Your task to perform on an android device: Toggle the flashlight Image 0: 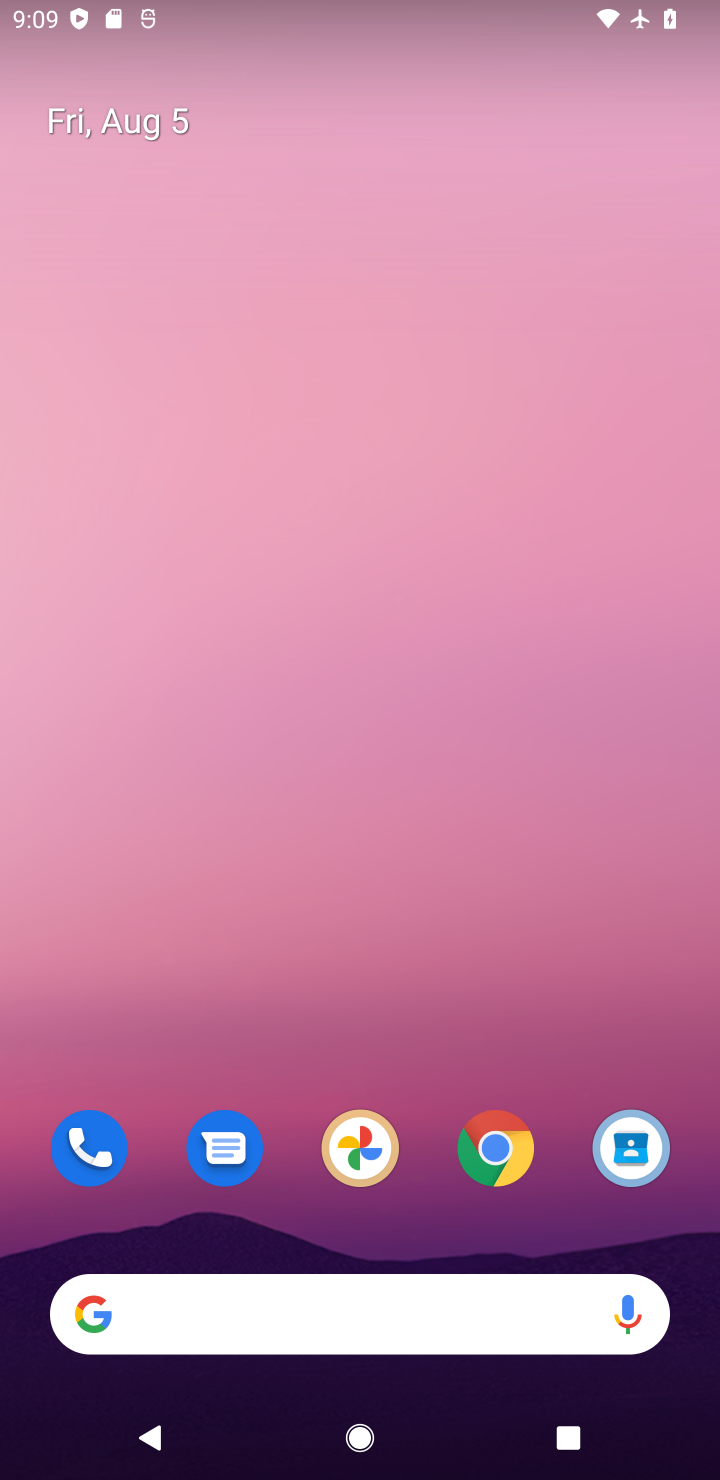
Step 0: drag from (391, 1269) to (360, 423)
Your task to perform on an android device: Toggle the flashlight Image 1: 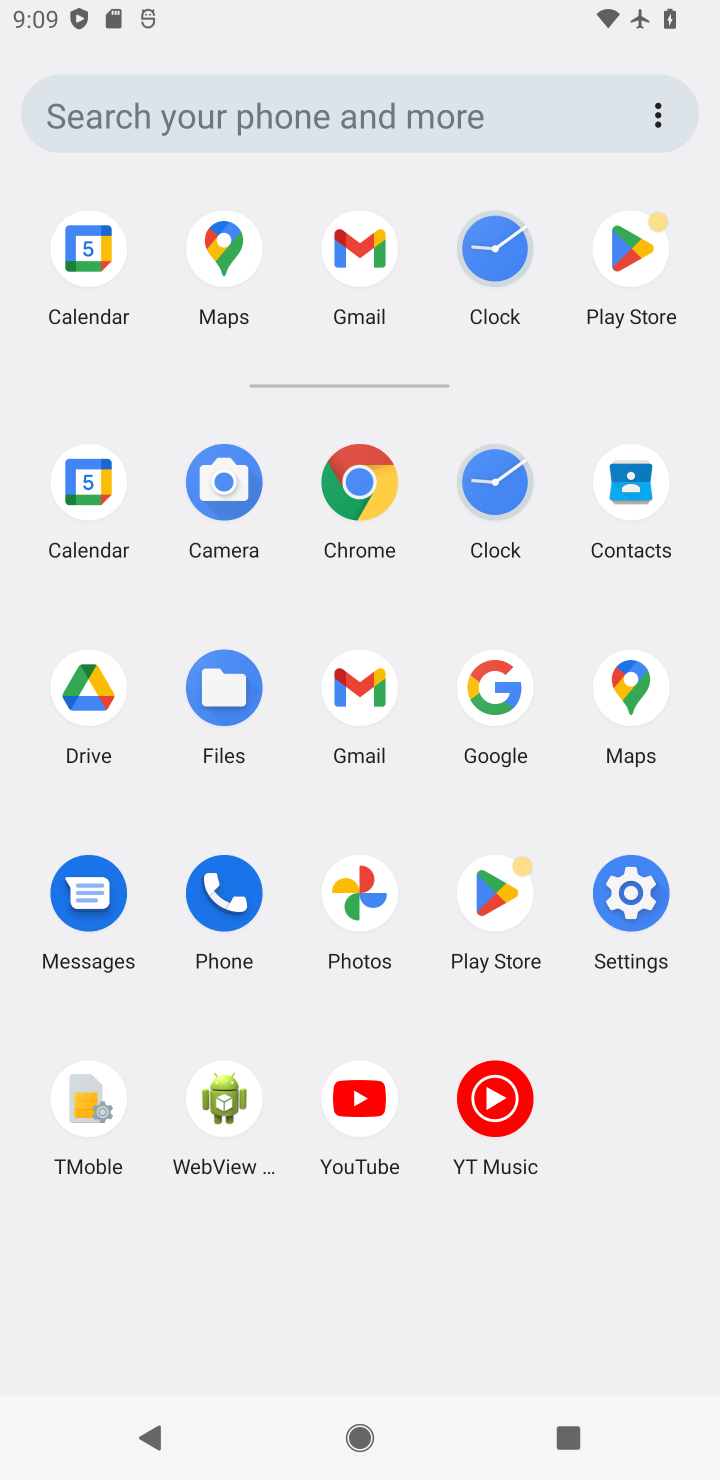
Step 1: click (597, 844)
Your task to perform on an android device: Toggle the flashlight Image 2: 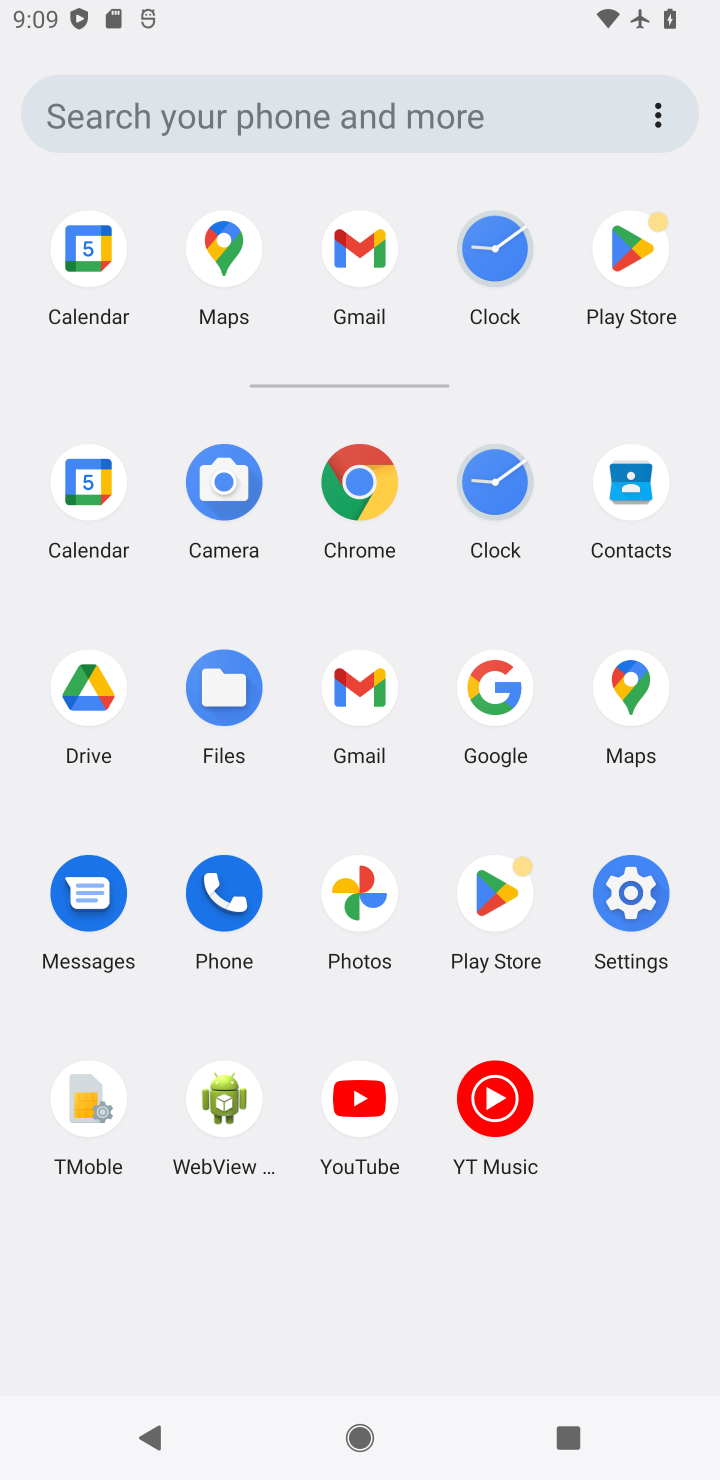
Step 2: task complete